Your task to perform on an android device: turn on improve location accuracy Image 0: 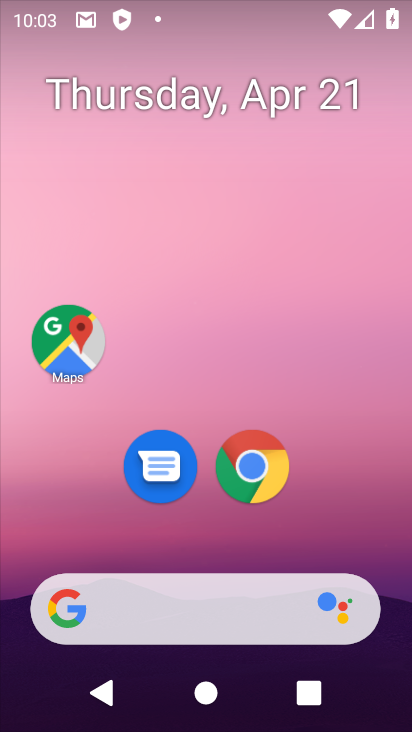
Step 0: drag from (347, 336) to (352, 157)
Your task to perform on an android device: turn on improve location accuracy Image 1: 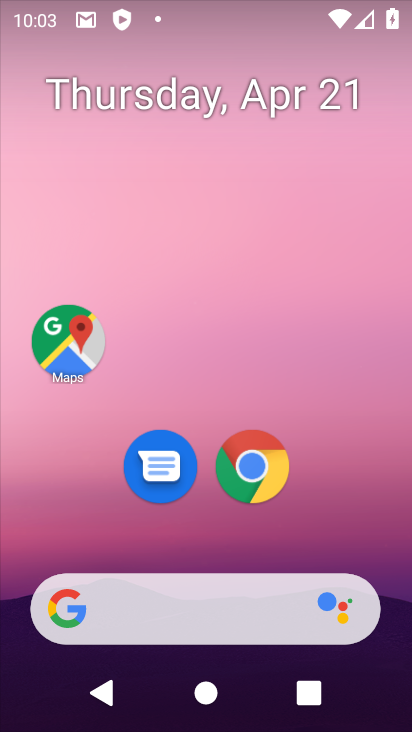
Step 1: drag from (372, 509) to (304, 152)
Your task to perform on an android device: turn on improve location accuracy Image 2: 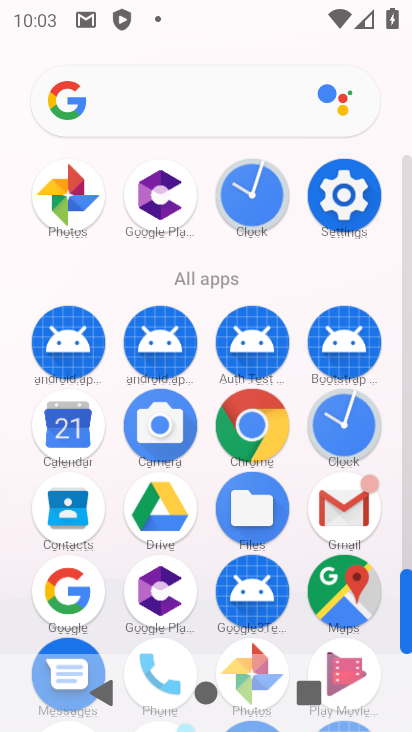
Step 2: click (341, 194)
Your task to perform on an android device: turn on improve location accuracy Image 3: 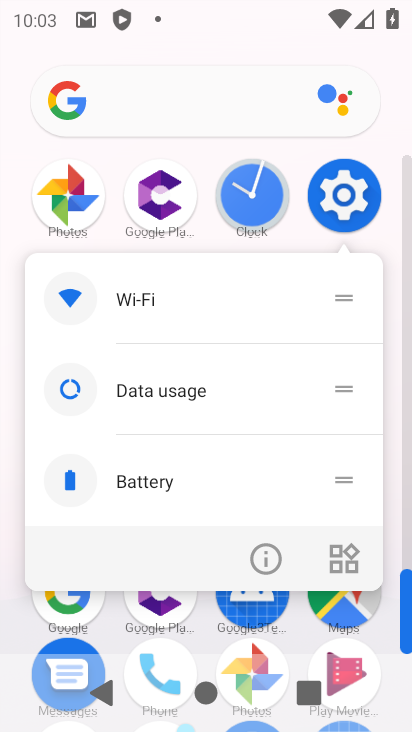
Step 3: click (341, 195)
Your task to perform on an android device: turn on improve location accuracy Image 4: 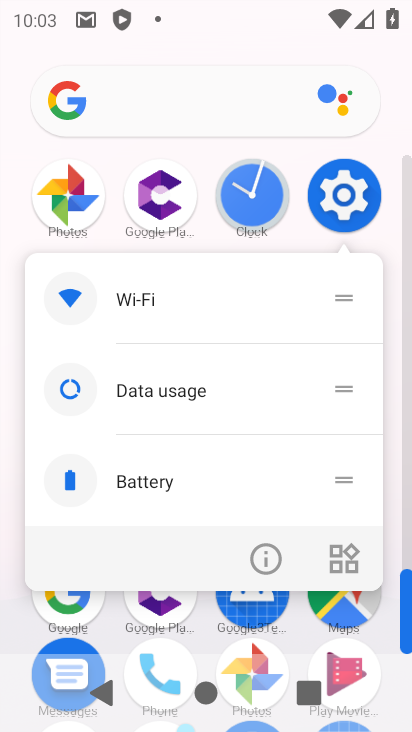
Step 4: drag from (378, 637) to (371, 139)
Your task to perform on an android device: turn on improve location accuracy Image 5: 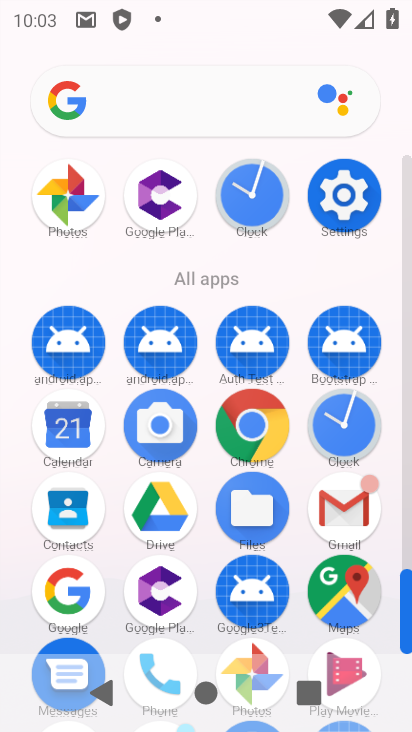
Step 5: drag from (293, 555) to (319, 224)
Your task to perform on an android device: turn on improve location accuracy Image 6: 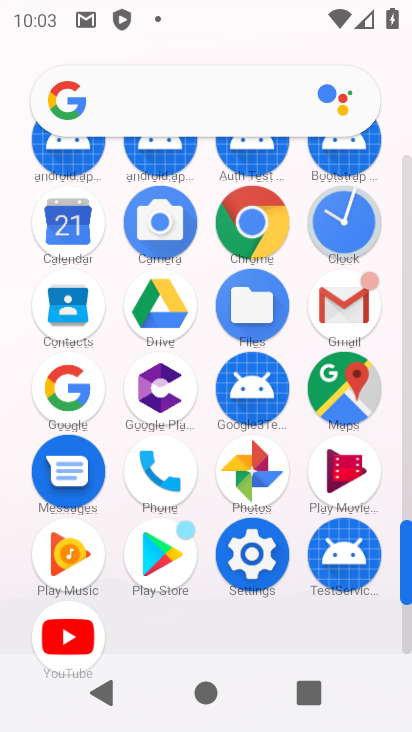
Step 6: click (255, 558)
Your task to perform on an android device: turn on improve location accuracy Image 7: 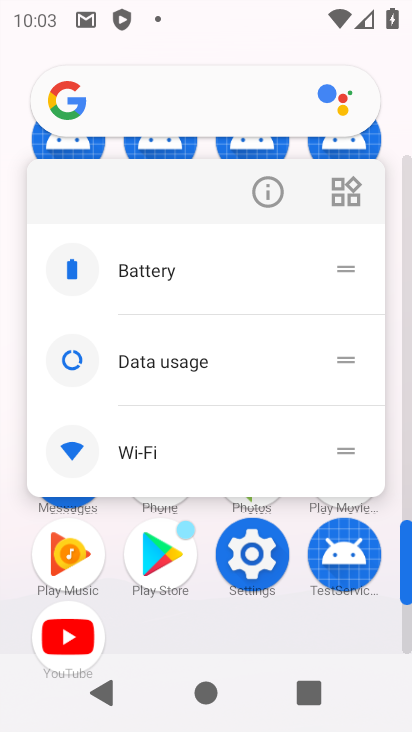
Step 7: click (250, 564)
Your task to perform on an android device: turn on improve location accuracy Image 8: 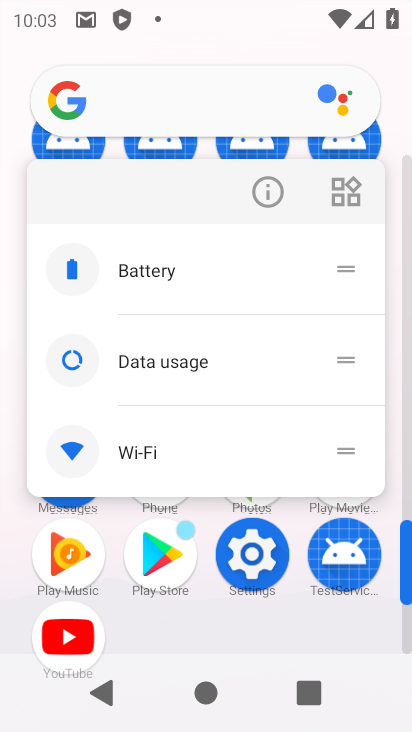
Step 8: click (252, 559)
Your task to perform on an android device: turn on improve location accuracy Image 9: 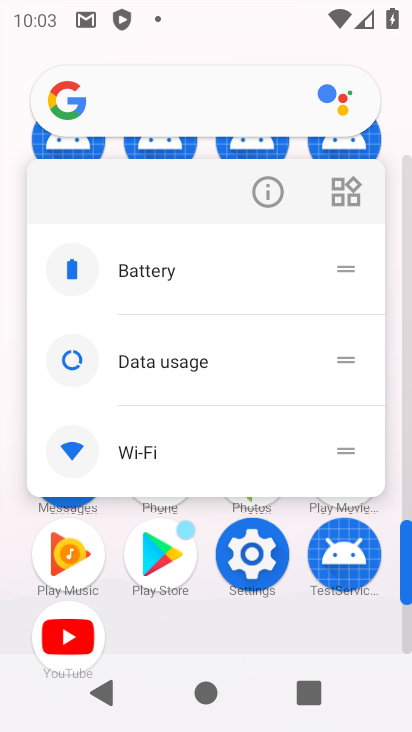
Step 9: click (241, 576)
Your task to perform on an android device: turn on improve location accuracy Image 10: 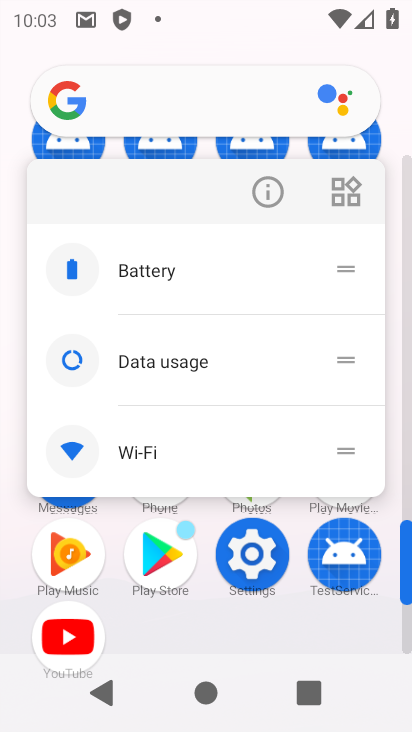
Step 10: click (249, 578)
Your task to perform on an android device: turn on improve location accuracy Image 11: 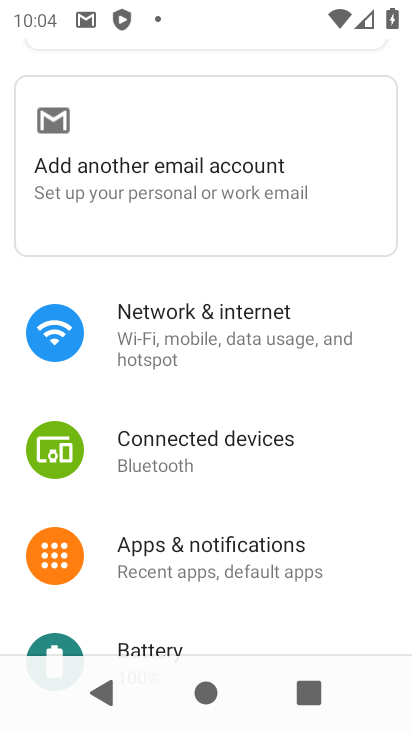
Step 11: drag from (258, 627) to (274, 359)
Your task to perform on an android device: turn on improve location accuracy Image 12: 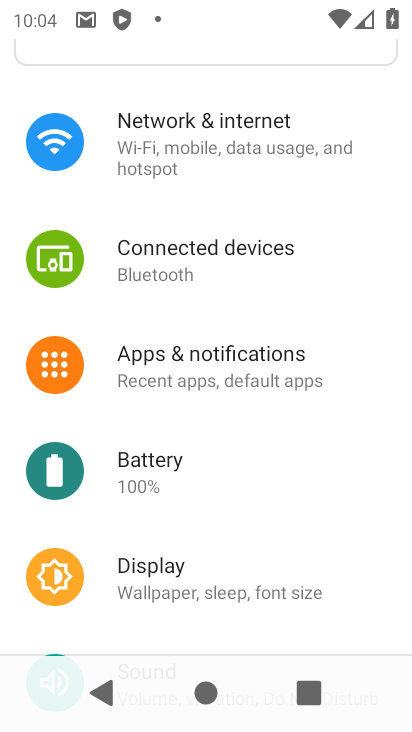
Step 12: drag from (273, 558) to (295, 228)
Your task to perform on an android device: turn on improve location accuracy Image 13: 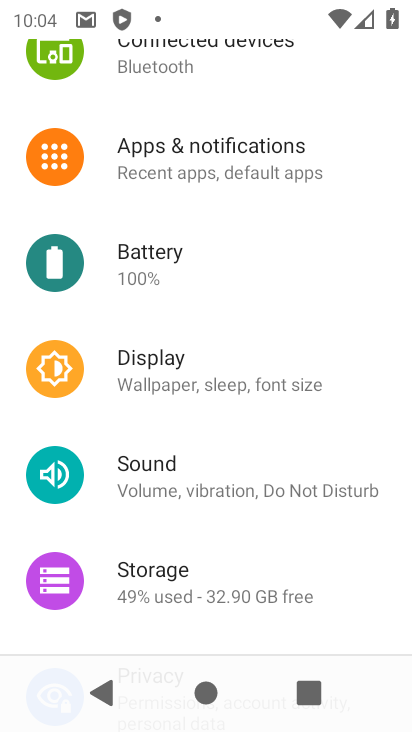
Step 13: drag from (278, 507) to (316, 219)
Your task to perform on an android device: turn on improve location accuracy Image 14: 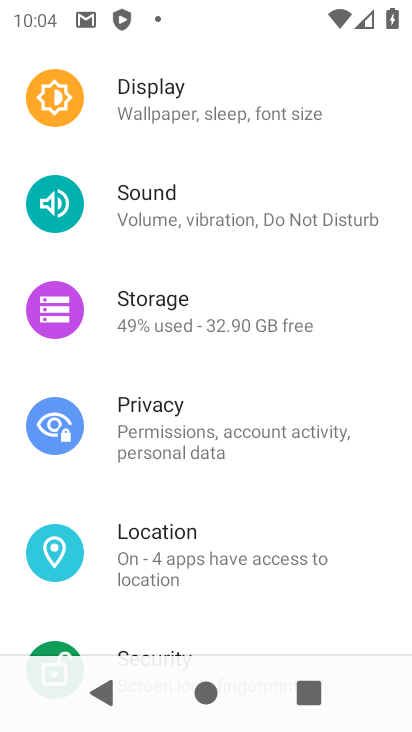
Step 14: click (186, 567)
Your task to perform on an android device: turn on improve location accuracy Image 15: 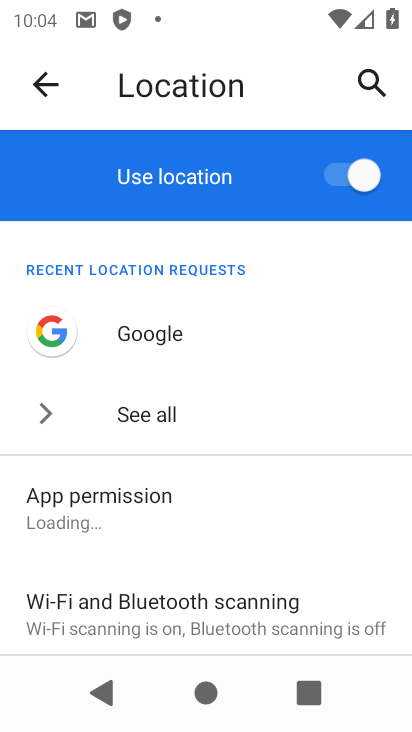
Step 15: drag from (342, 579) to (355, 254)
Your task to perform on an android device: turn on improve location accuracy Image 16: 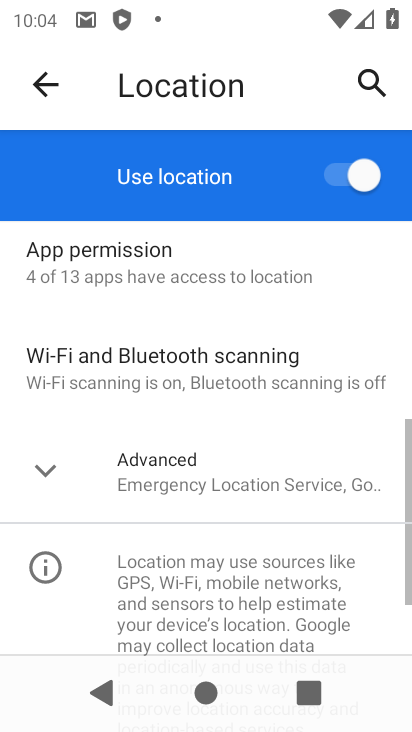
Step 16: click (220, 475)
Your task to perform on an android device: turn on improve location accuracy Image 17: 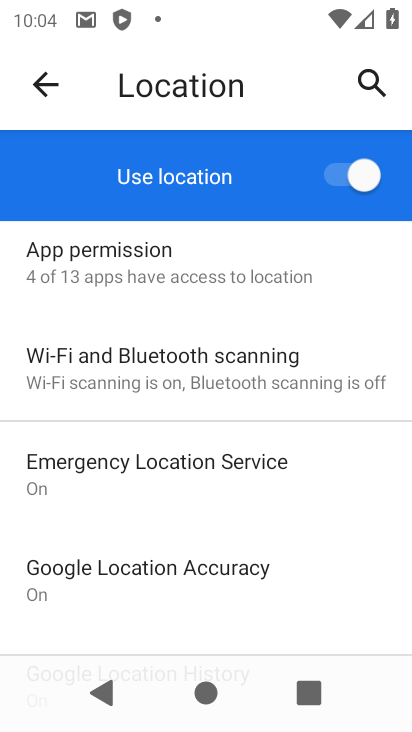
Step 17: drag from (348, 582) to (382, 331)
Your task to perform on an android device: turn on improve location accuracy Image 18: 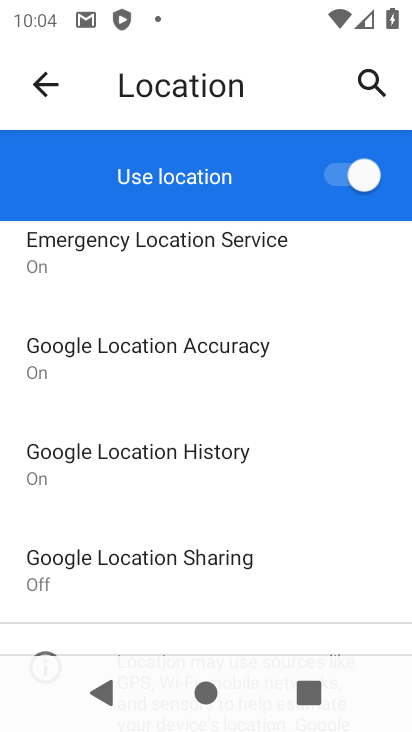
Step 18: click (220, 345)
Your task to perform on an android device: turn on improve location accuracy Image 19: 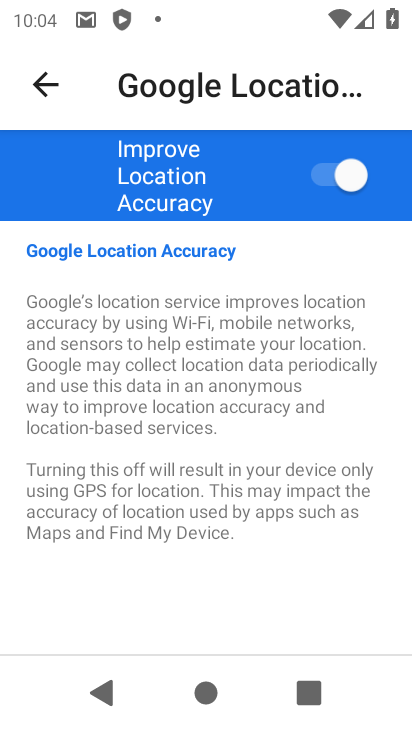
Step 19: task complete